Your task to perform on an android device: toggle notification dots Image 0: 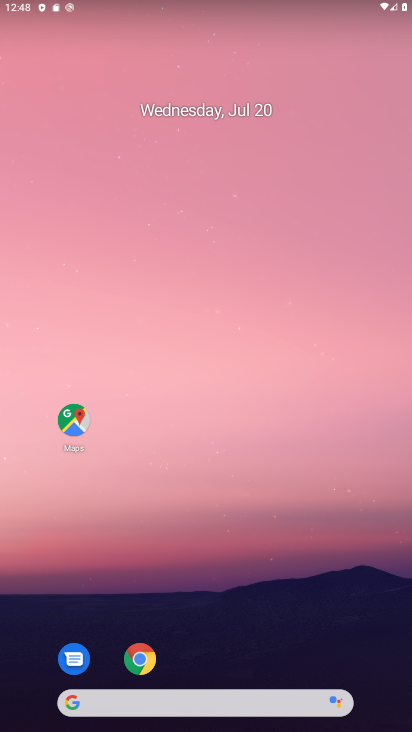
Step 0: drag from (217, 686) to (239, 167)
Your task to perform on an android device: toggle notification dots Image 1: 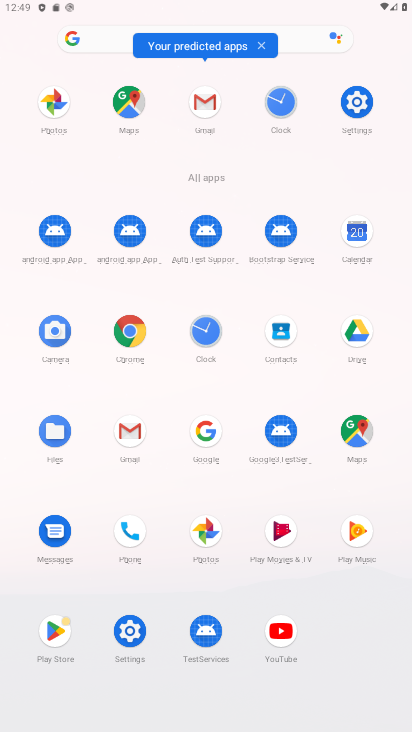
Step 1: click (132, 623)
Your task to perform on an android device: toggle notification dots Image 2: 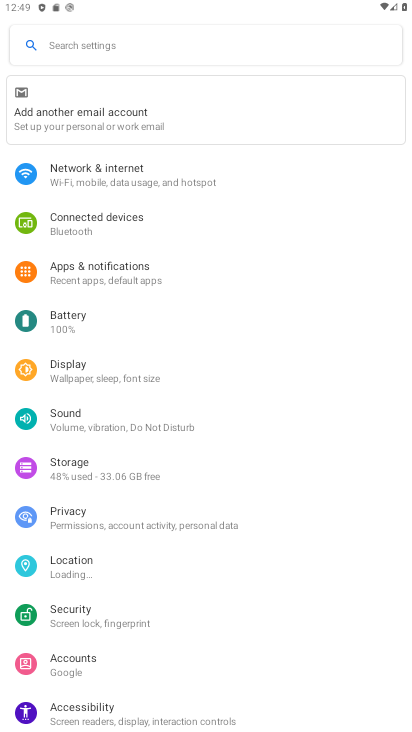
Step 2: click (158, 284)
Your task to perform on an android device: toggle notification dots Image 3: 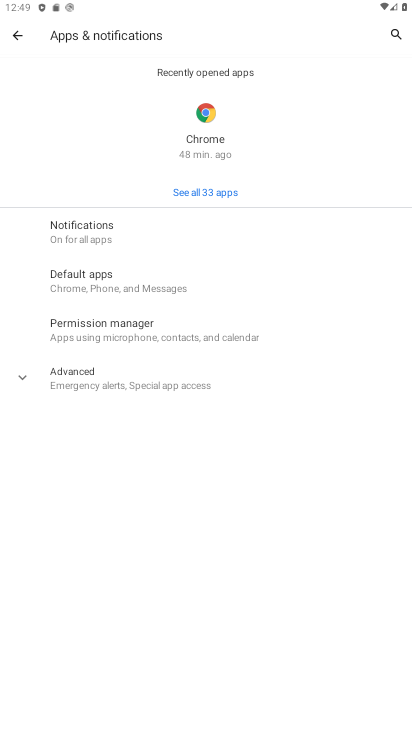
Step 3: click (153, 240)
Your task to perform on an android device: toggle notification dots Image 4: 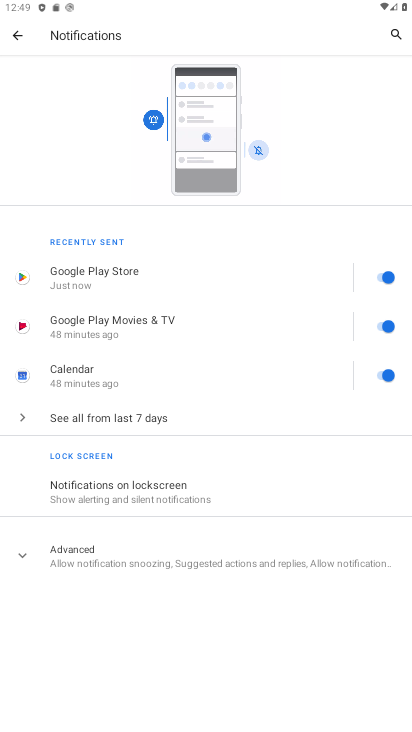
Step 4: click (182, 559)
Your task to perform on an android device: toggle notification dots Image 5: 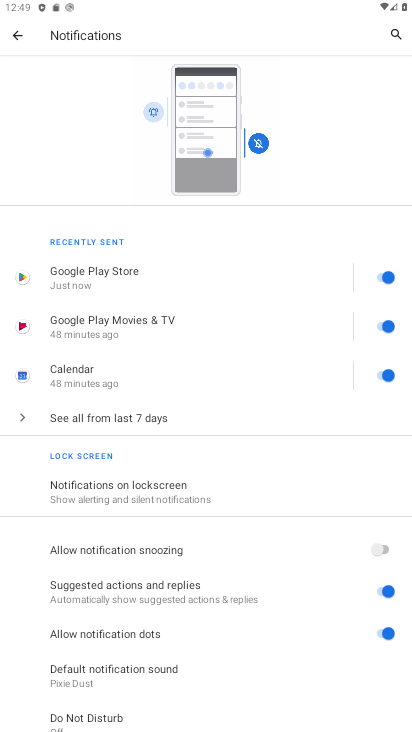
Step 5: click (385, 628)
Your task to perform on an android device: toggle notification dots Image 6: 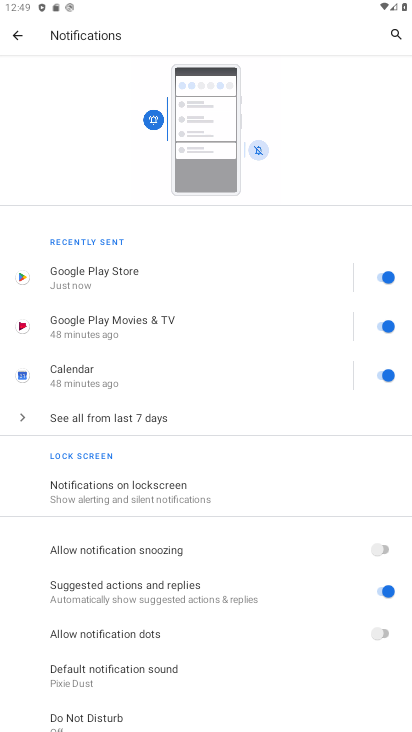
Step 6: task complete